Your task to perform on an android device: check battery use Image 0: 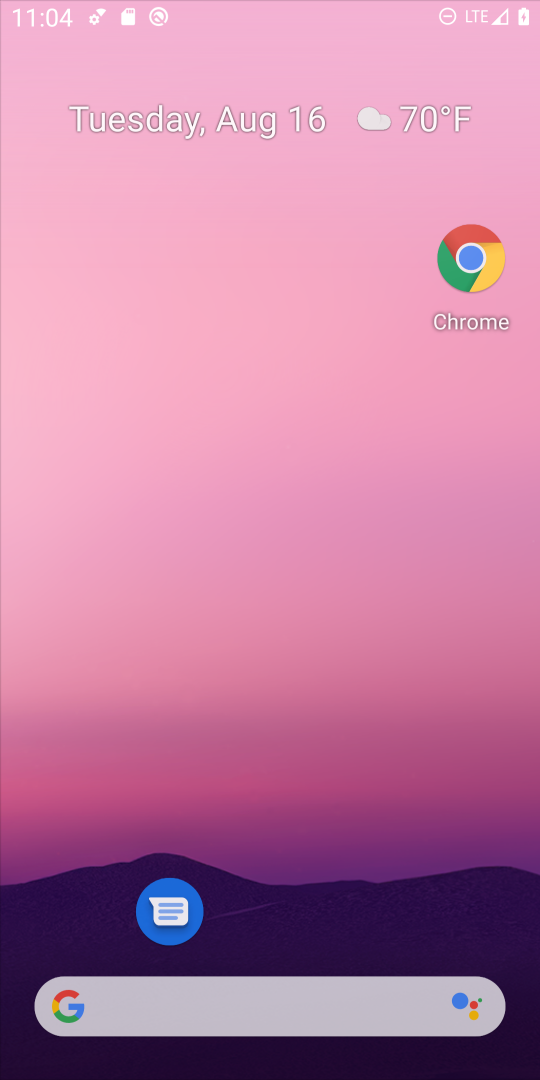
Step 0: press home button
Your task to perform on an android device: check battery use Image 1: 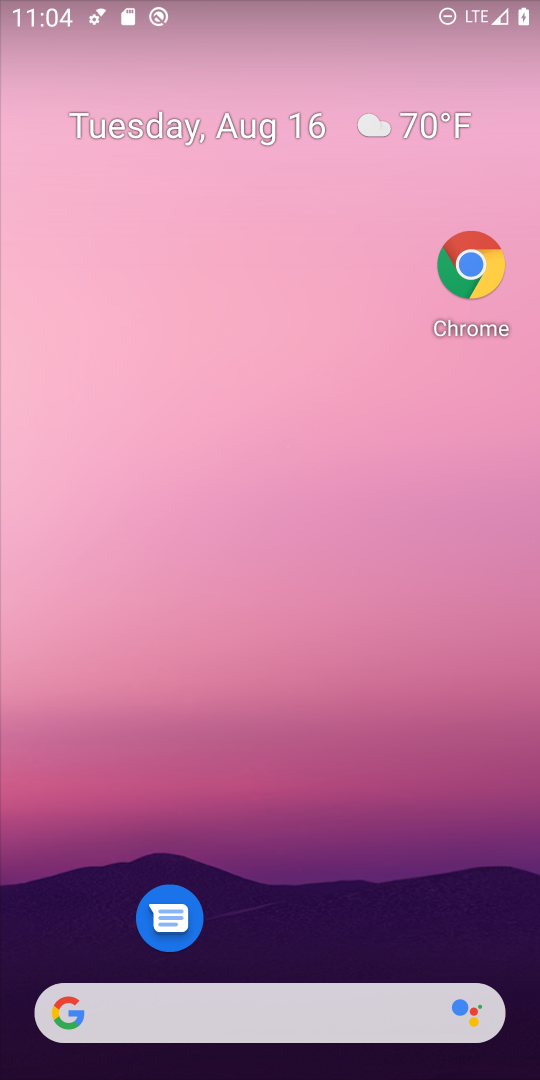
Step 1: drag from (379, 502) to (451, 45)
Your task to perform on an android device: check battery use Image 2: 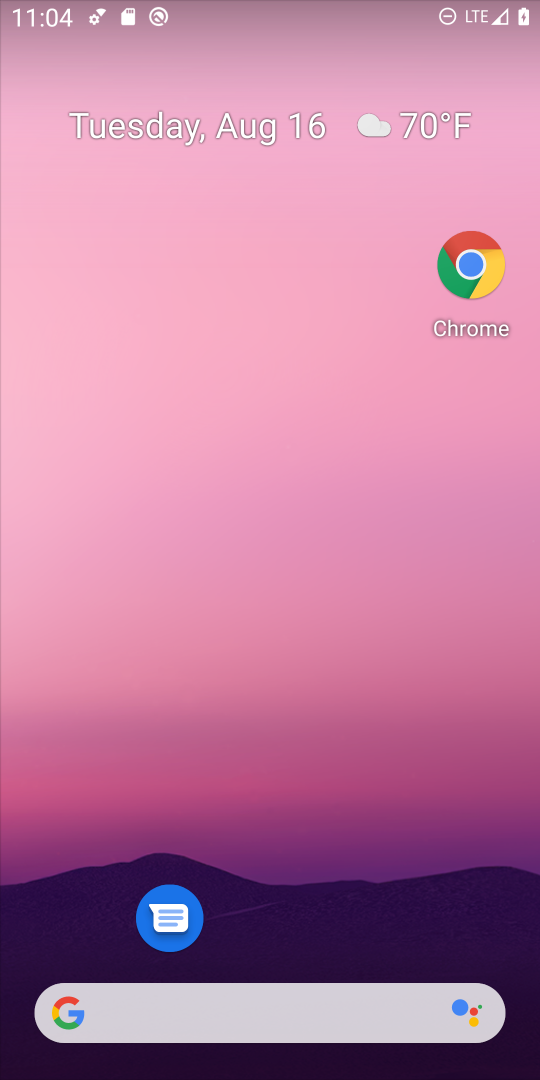
Step 2: drag from (330, 912) to (394, 92)
Your task to perform on an android device: check battery use Image 3: 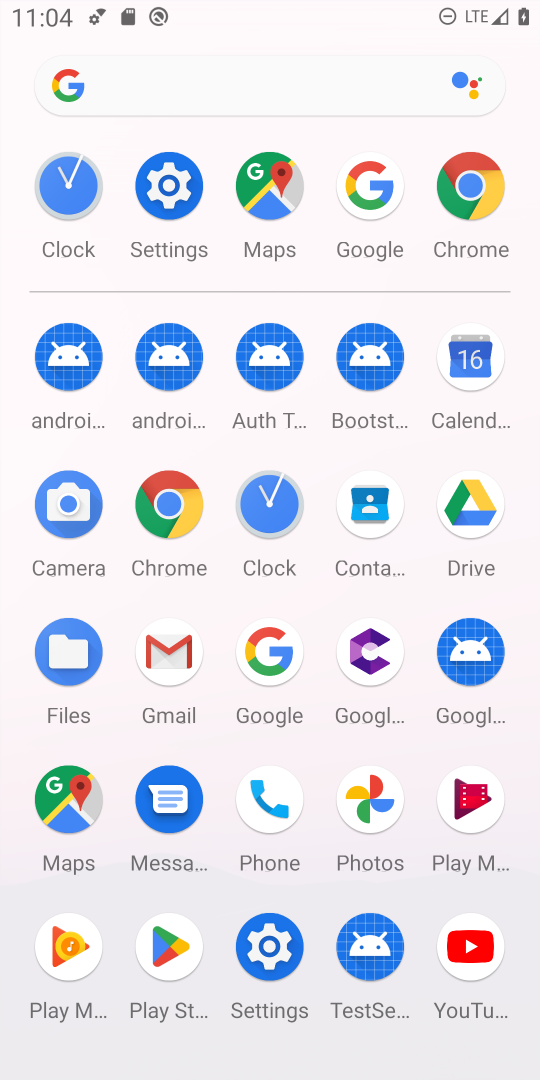
Step 3: click (161, 220)
Your task to perform on an android device: check battery use Image 4: 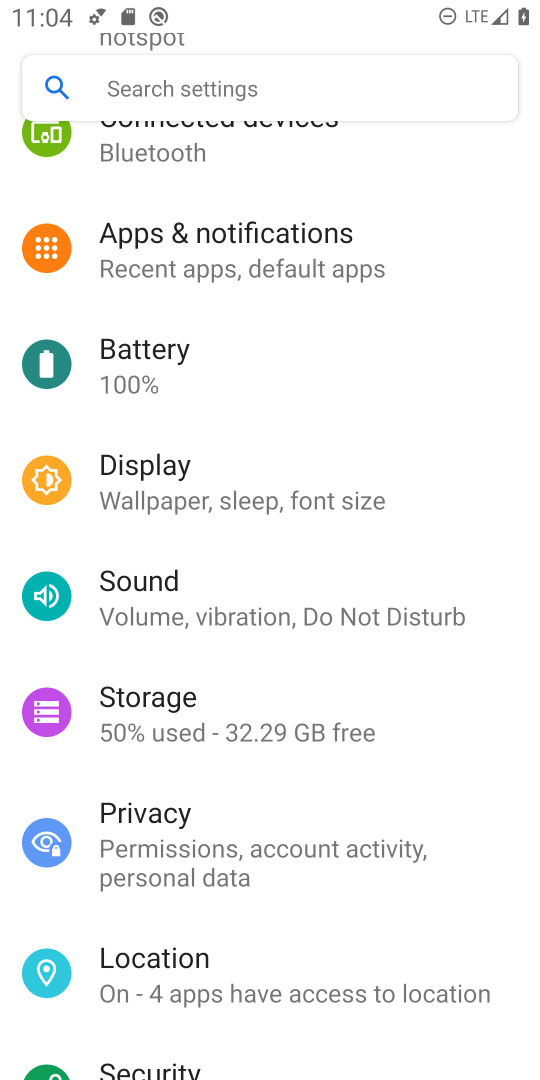
Step 4: drag from (260, 509) to (227, 849)
Your task to perform on an android device: check battery use Image 5: 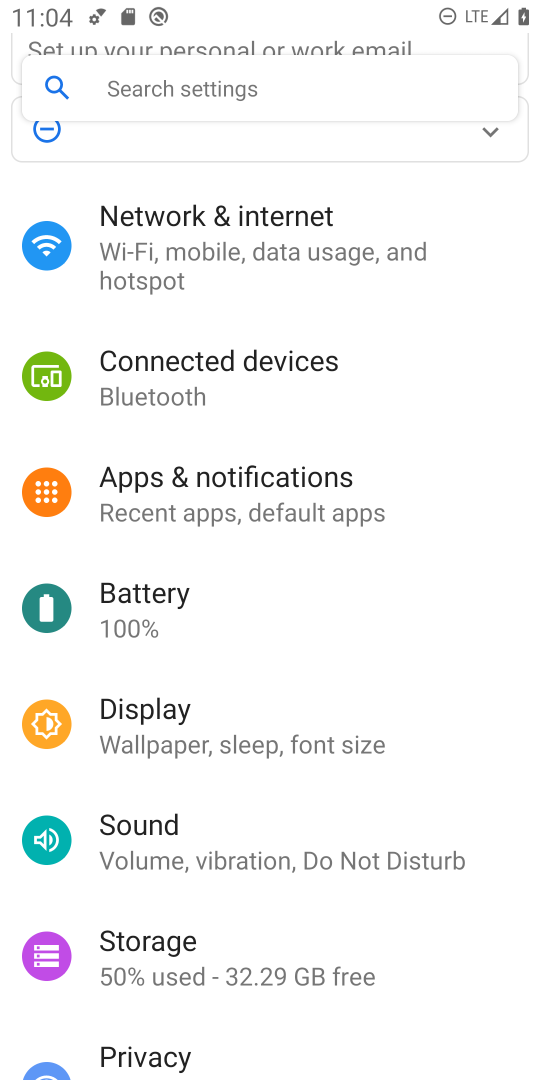
Step 5: click (237, 562)
Your task to perform on an android device: check battery use Image 6: 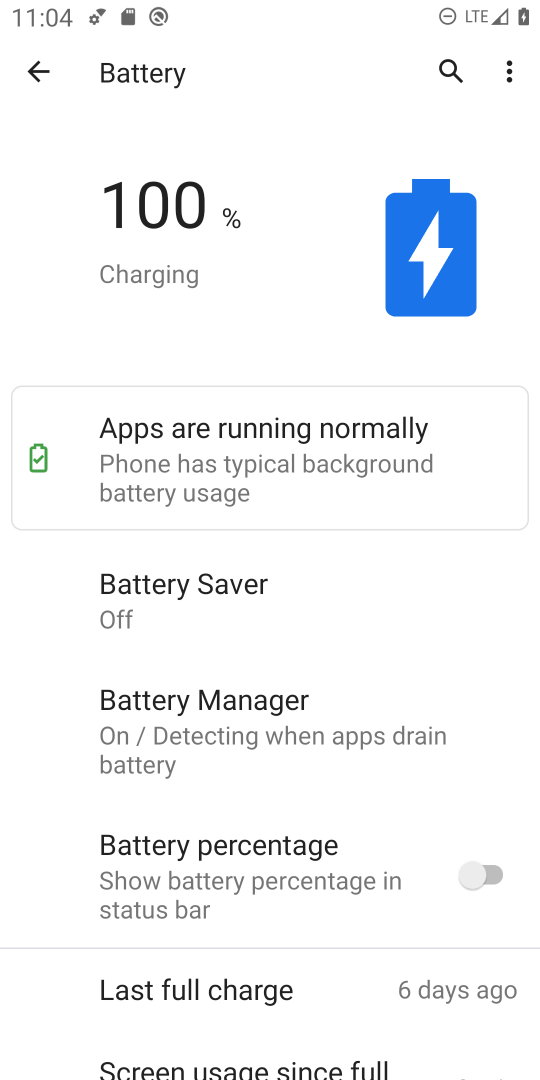
Step 6: task complete